Your task to perform on an android device: change notification settings in the gmail app Image 0: 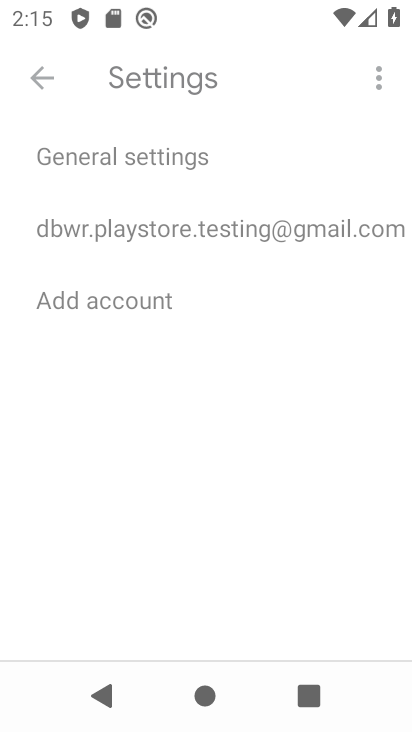
Step 0: drag from (313, 498) to (292, 386)
Your task to perform on an android device: change notification settings in the gmail app Image 1: 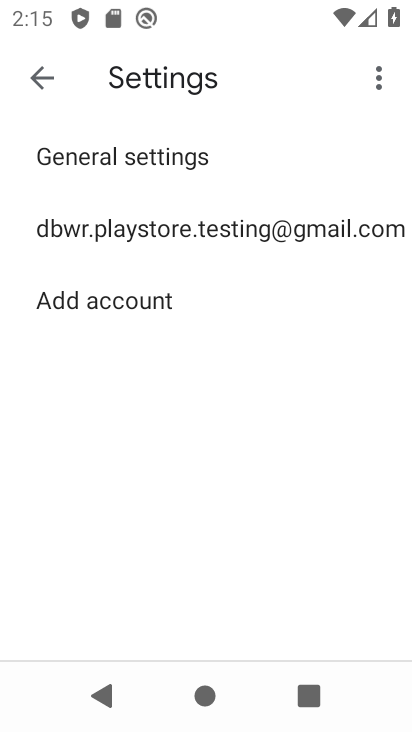
Step 1: click (196, 221)
Your task to perform on an android device: change notification settings in the gmail app Image 2: 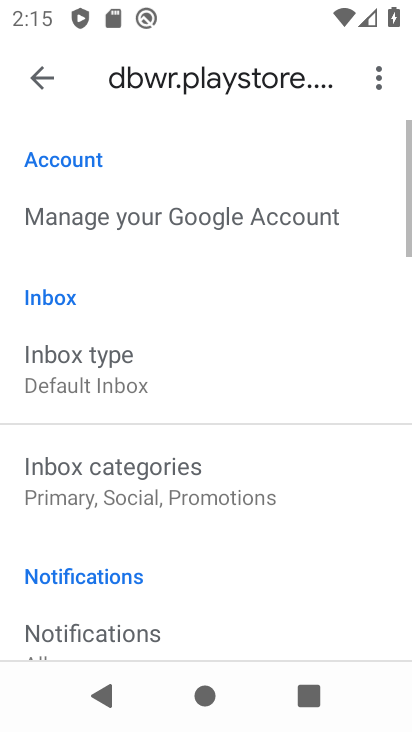
Step 2: click (117, 634)
Your task to perform on an android device: change notification settings in the gmail app Image 3: 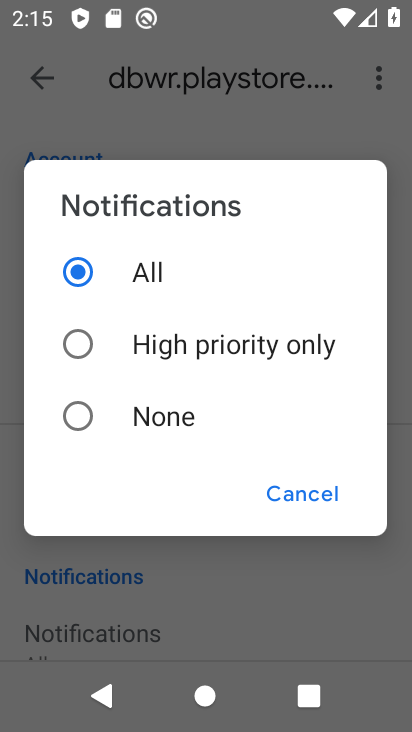
Step 3: click (221, 343)
Your task to perform on an android device: change notification settings in the gmail app Image 4: 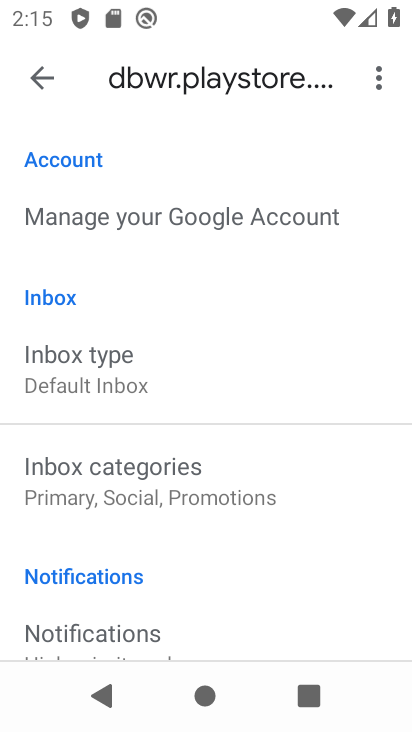
Step 4: task complete